Your task to perform on an android device: toggle airplane mode Image 0: 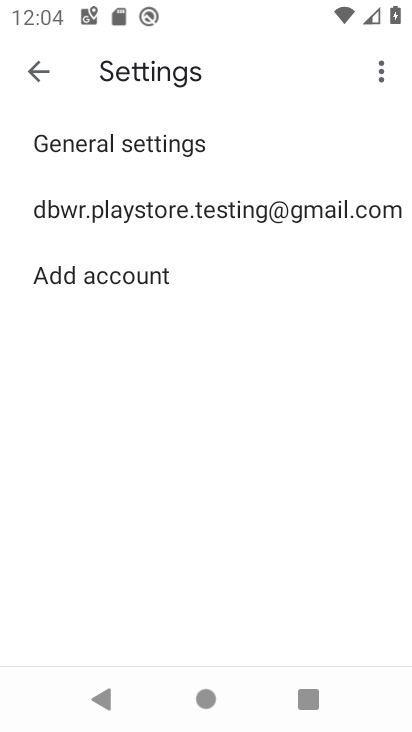
Step 0: click (36, 66)
Your task to perform on an android device: toggle airplane mode Image 1: 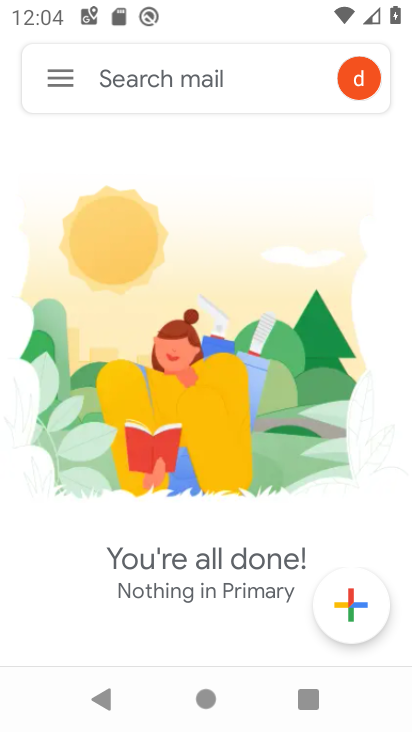
Step 1: press back button
Your task to perform on an android device: toggle airplane mode Image 2: 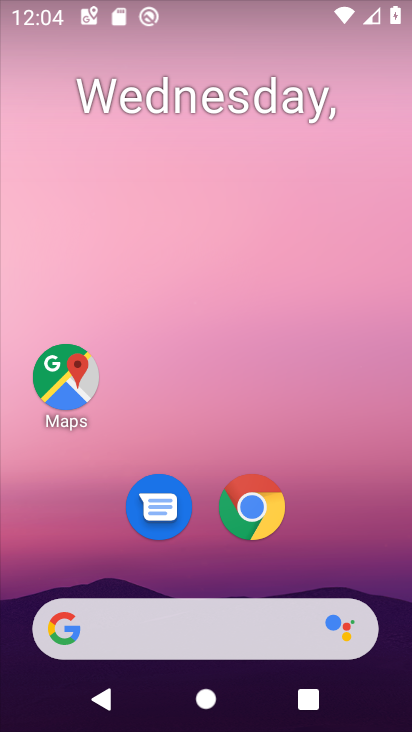
Step 2: drag from (227, 658) to (158, 74)
Your task to perform on an android device: toggle airplane mode Image 3: 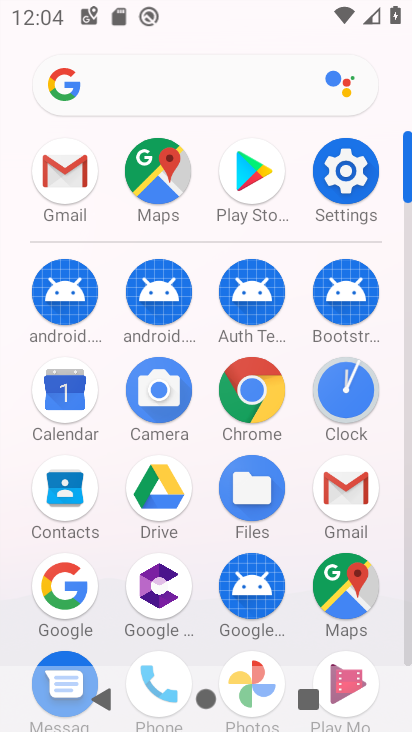
Step 3: drag from (246, 605) to (242, 109)
Your task to perform on an android device: toggle airplane mode Image 4: 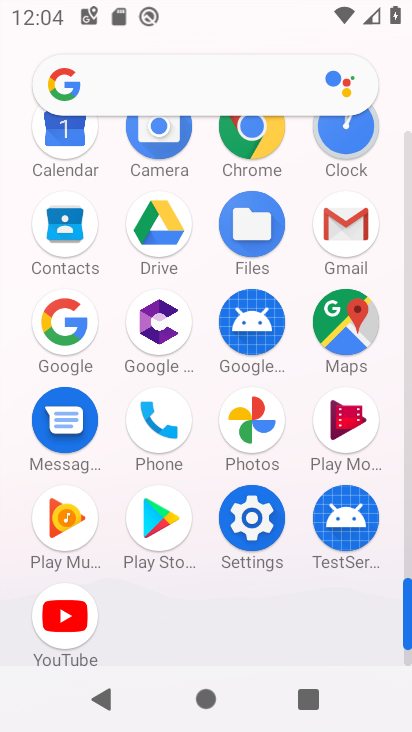
Step 4: click (262, 515)
Your task to perform on an android device: toggle airplane mode Image 5: 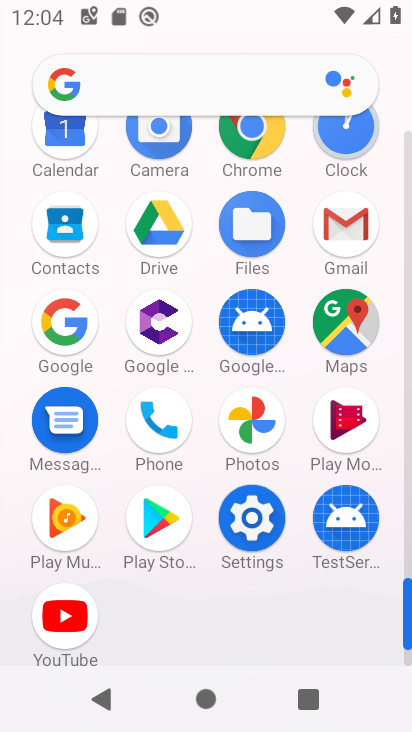
Step 5: click (261, 514)
Your task to perform on an android device: toggle airplane mode Image 6: 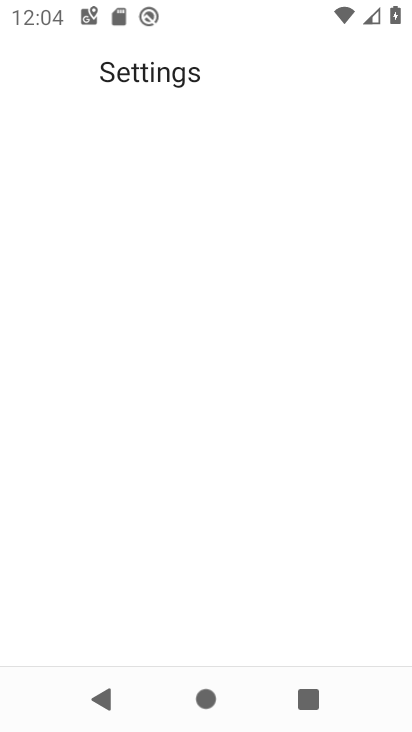
Step 6: click (261, 514)
Your task to perform on an android device: toggle airplane mode Image 7: 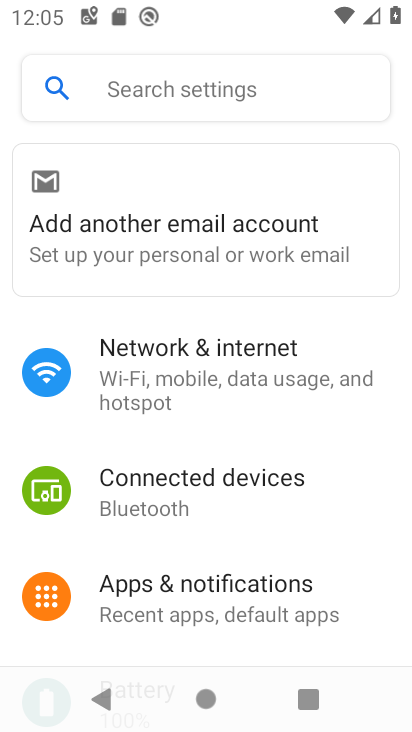
Step 7: click (196, 356)
Your task to perform on an android device: toggle airplane mode Image 8: 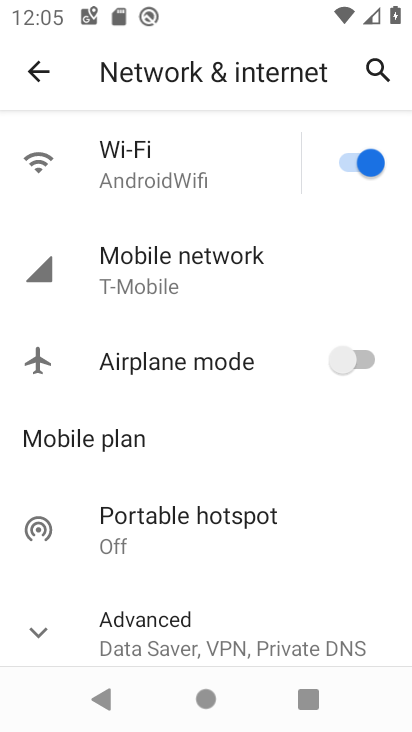
Step 8: click (339, 358)
Your task to perform on an android device: toggle airplane mode Image 9: 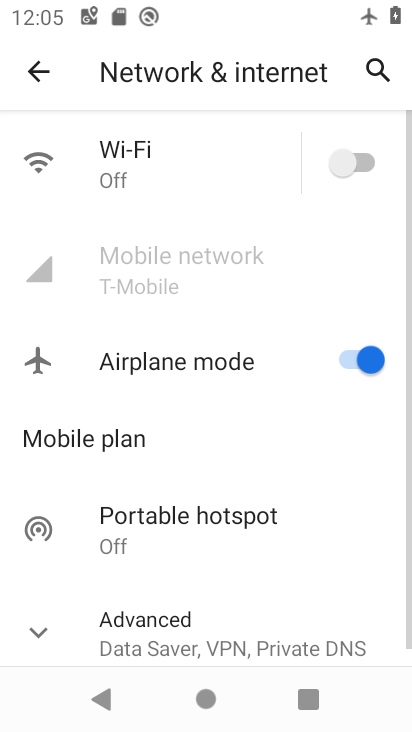
Step 9: task complete